Your task to perform on an android device: When is my next appointment? Image 0: 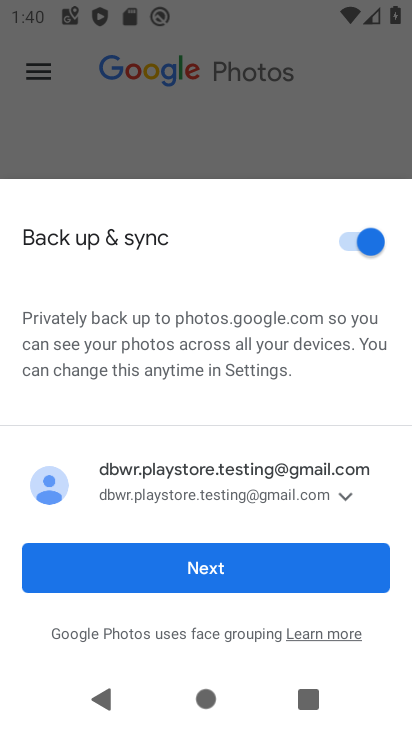
Step 0: press home button
Your task to perform on an android device: When is my next appointment? Image 1: 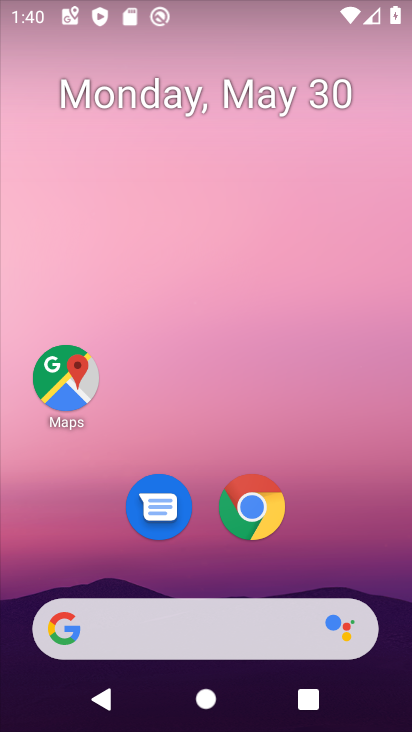
Step 1: drag from (203, 577) to (149, 104)
Your task to perform on an android device: When is my next appointment? Image 2: 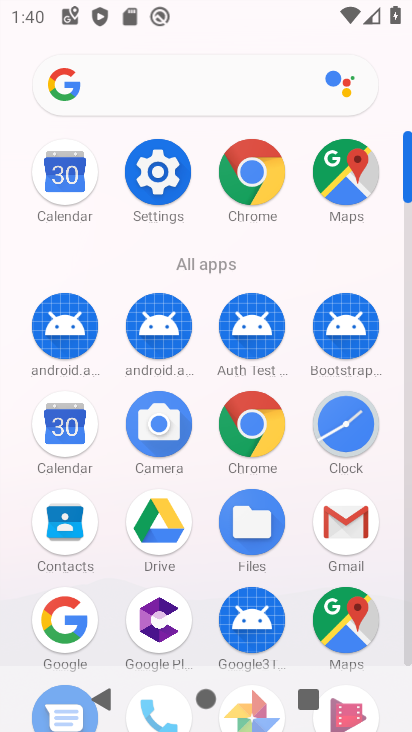
Step 2: click (65, 201)
Your task to perform on an android device: When is my next appointment? Image 3: 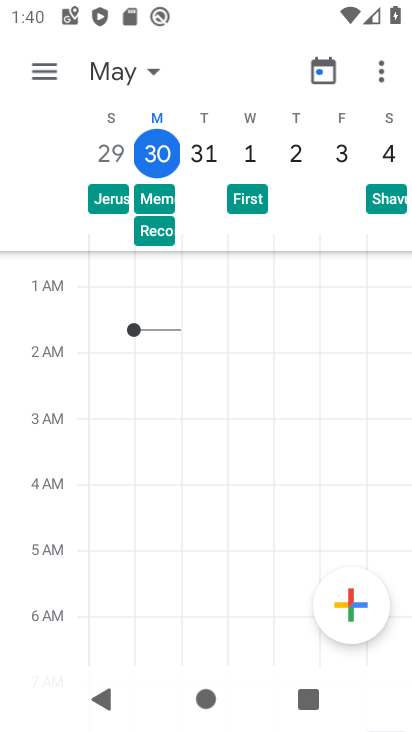
Step 3: click (42, 71)
Your task to perform on an android device: When is my next appointment? Image 4: 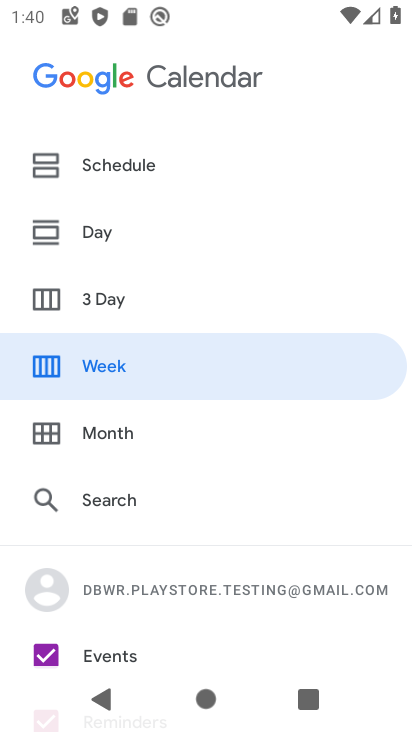
Step 4: click (165, 166)
Your task to perform on an android device: When is my next appointment? Image 5: 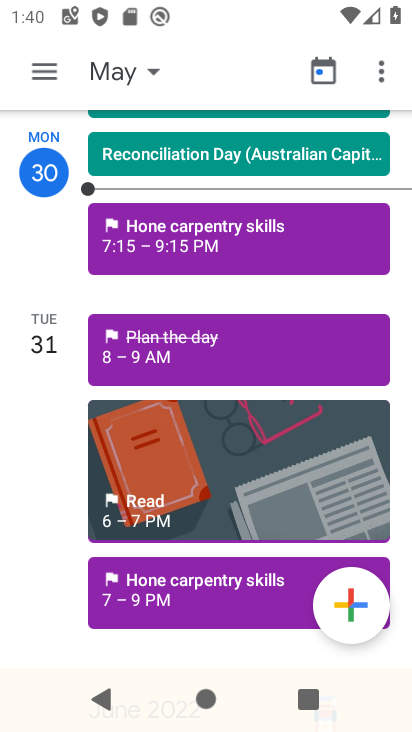
Step 5: task complete